Your task to perform on an android device: toggle location history Image 0: 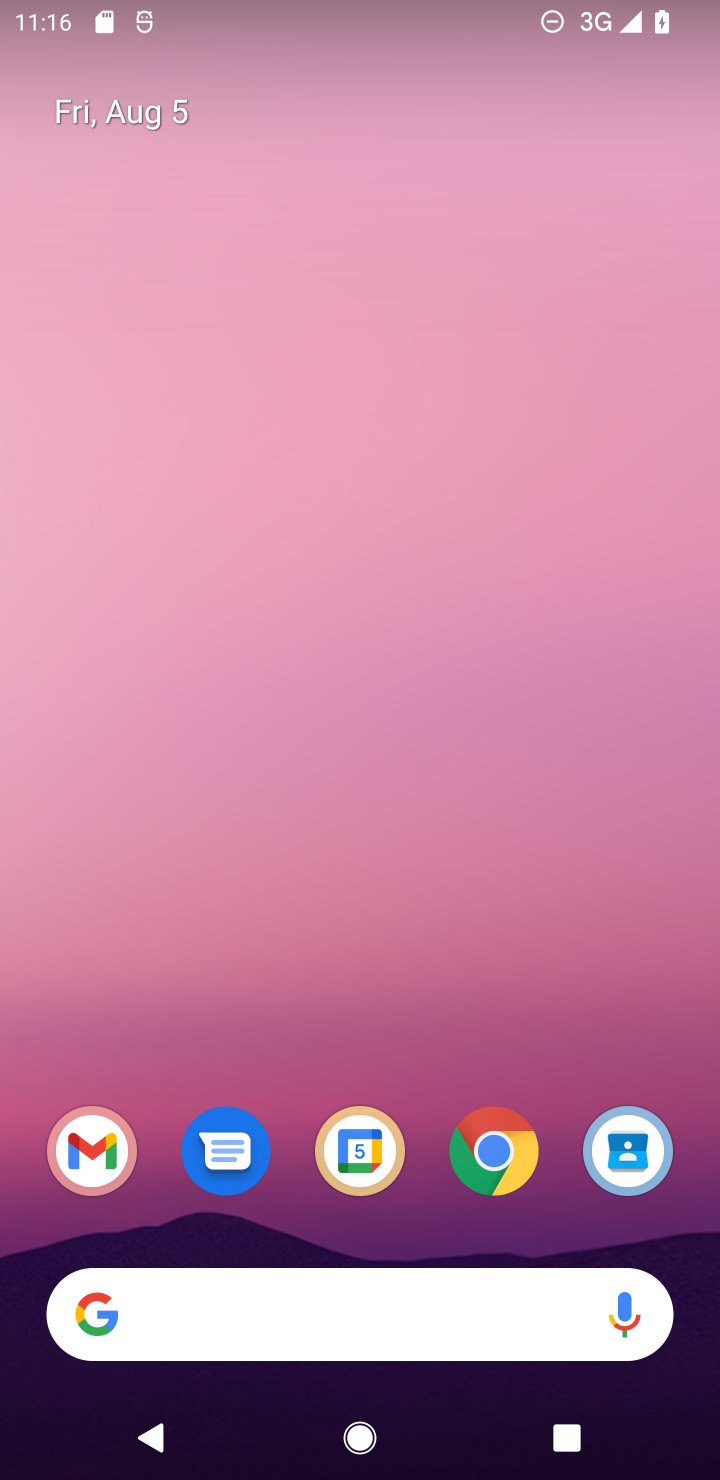
Step 0: drag from (297, 1054) to (299, 119)
Your task to perform on an android device: toggle location history Image 1: 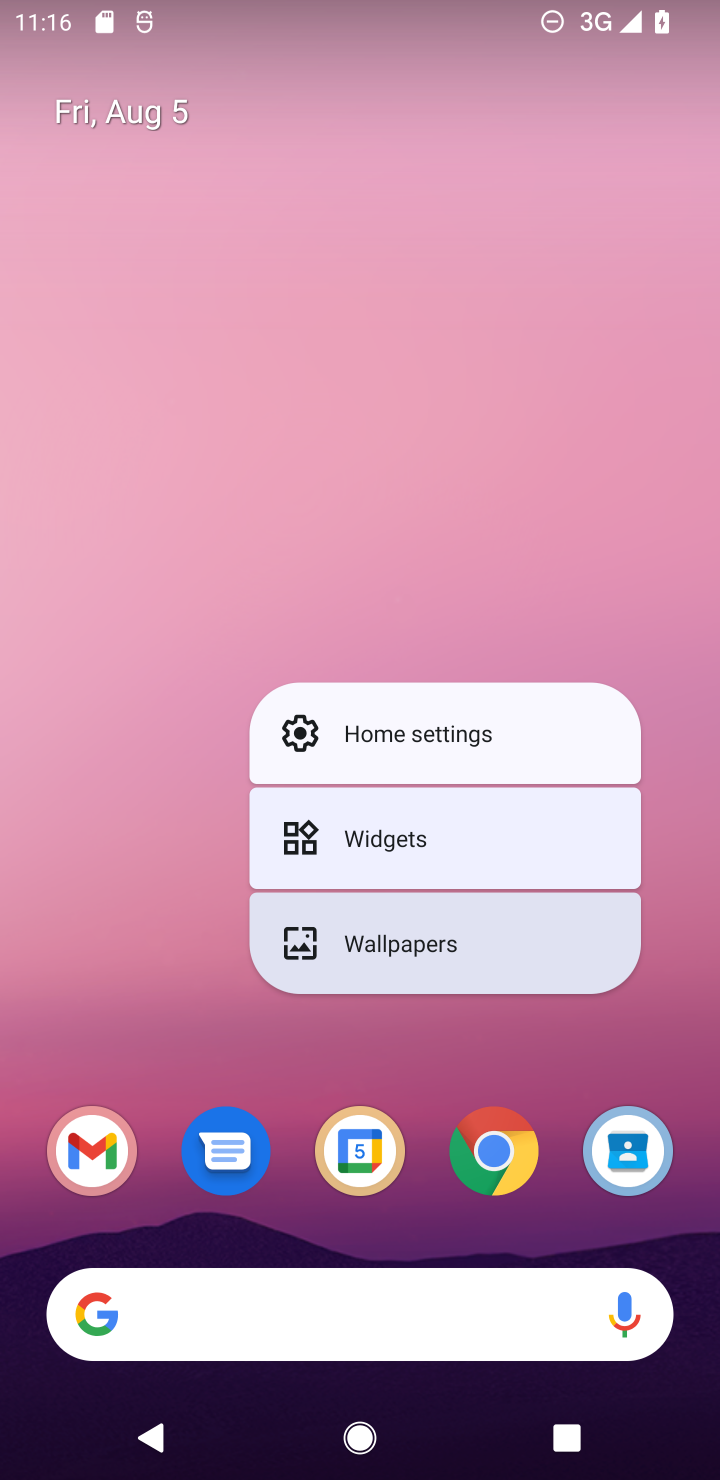
Step 1: click (290, 1233)
Your task to perform on an android device: toggle location history Image 2: 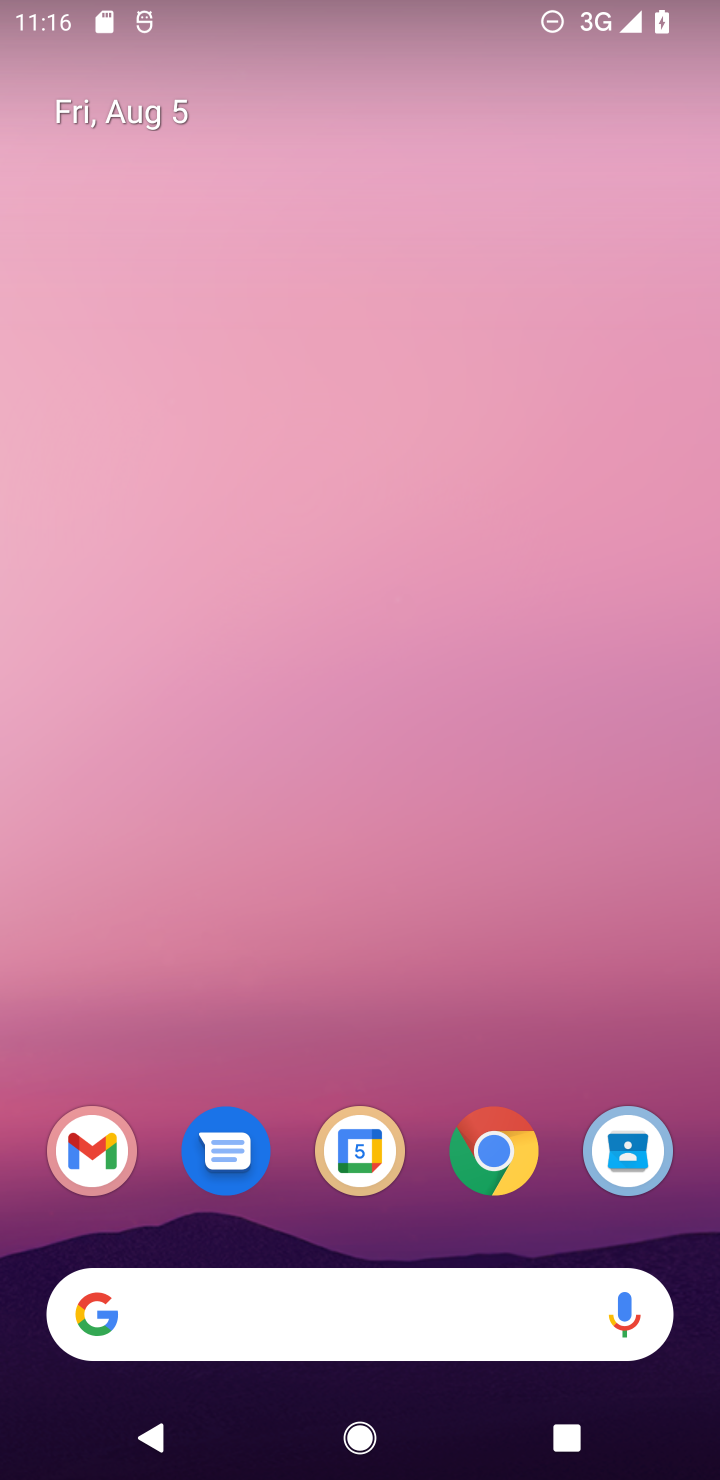
Step 2: drag from (285, 1185) to (346, 82)
Your task to perform on an android device: toggle location history Image 3: 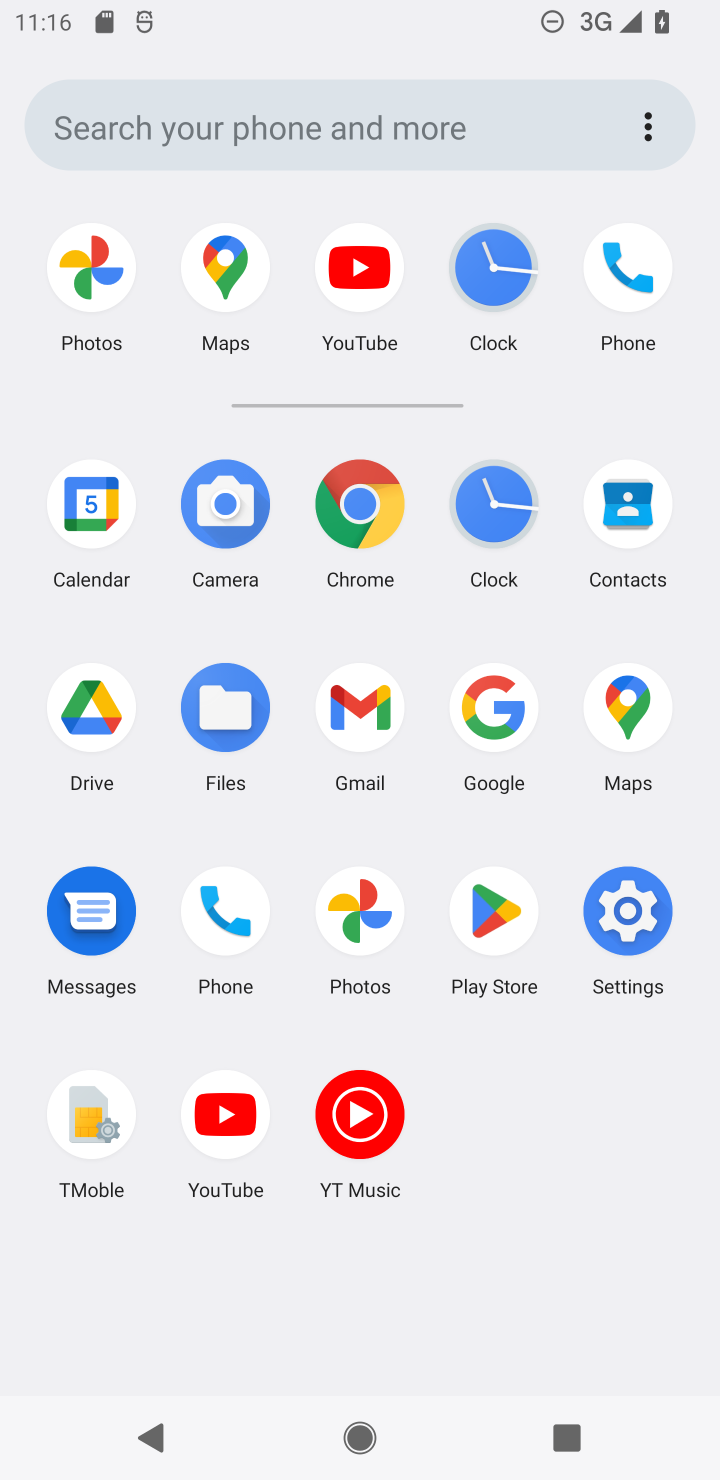
Step 3: click (617, 911)
Your task to perform on an android device: toggle location history Image 4: 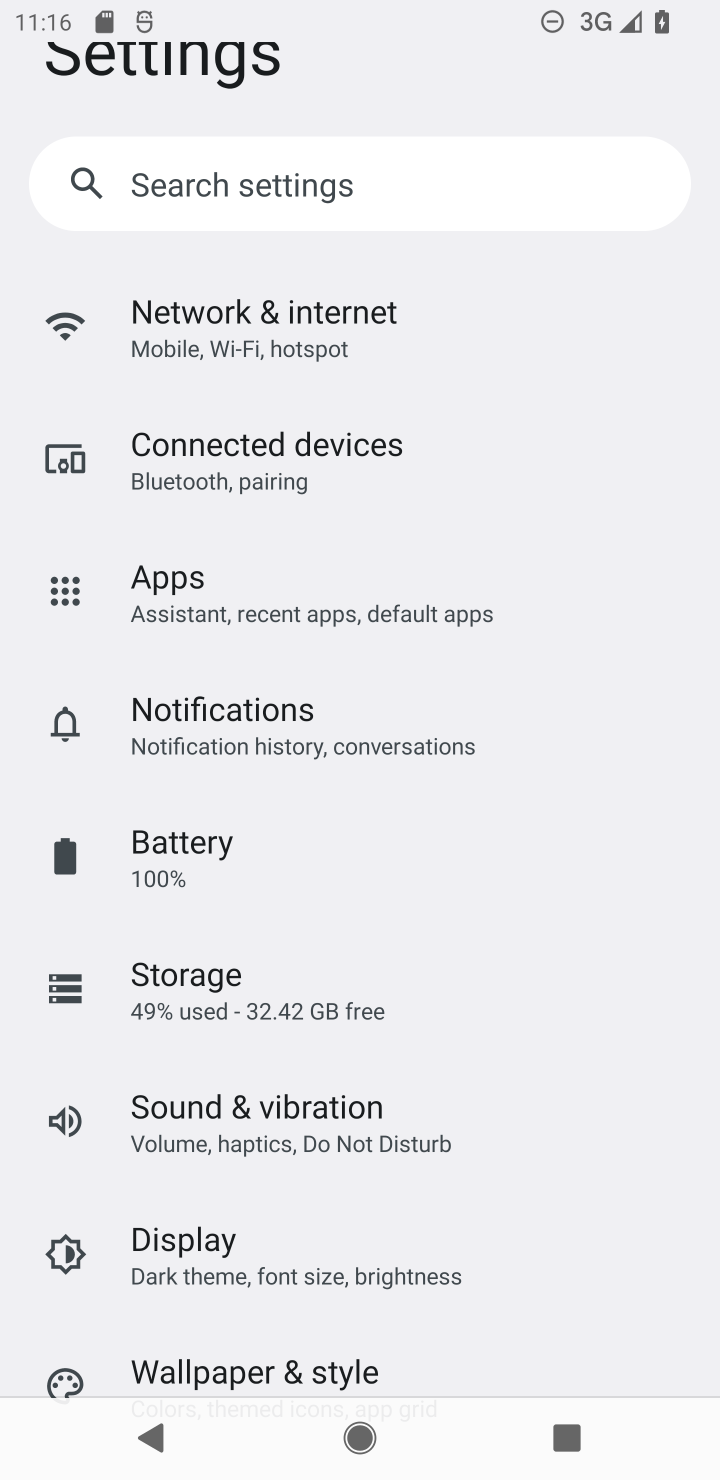
Step 4: click (91, 406)
Your task to perform on an android device: toggle location history Image 5: 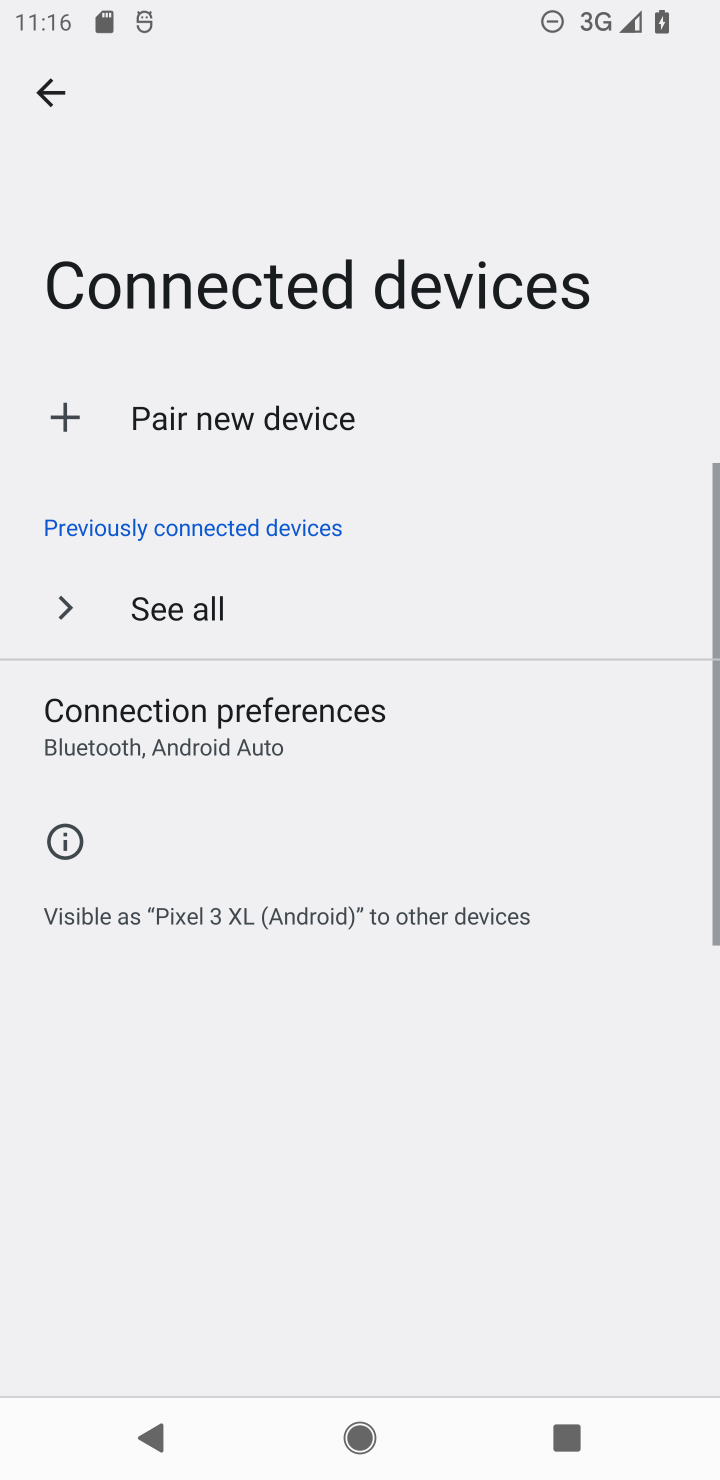
Step 5: drag from (292, 1294) to (279, 681)
Your task to perform on an android device: toggle location history Image 6: 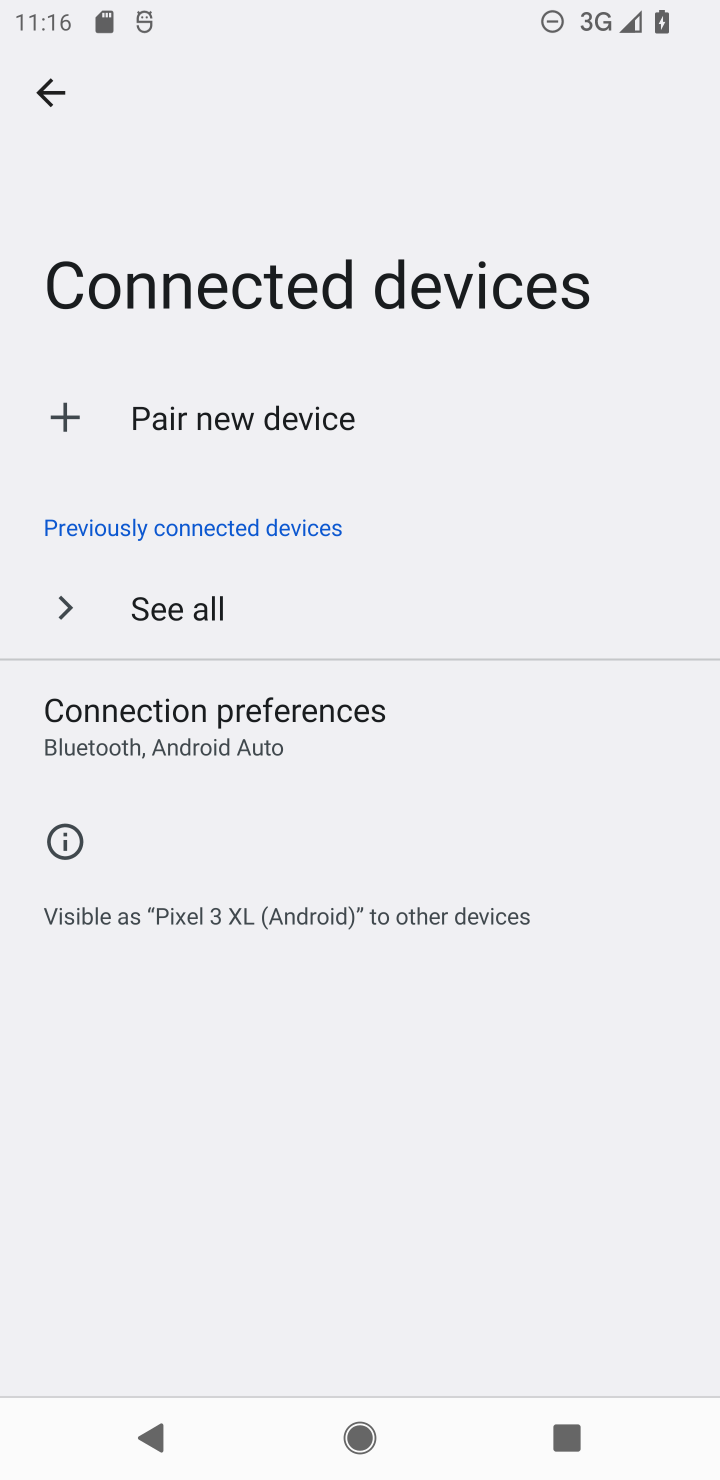
Step 6: click (46, 100)
Your task to perform on an android device: toggle location history Image 7: 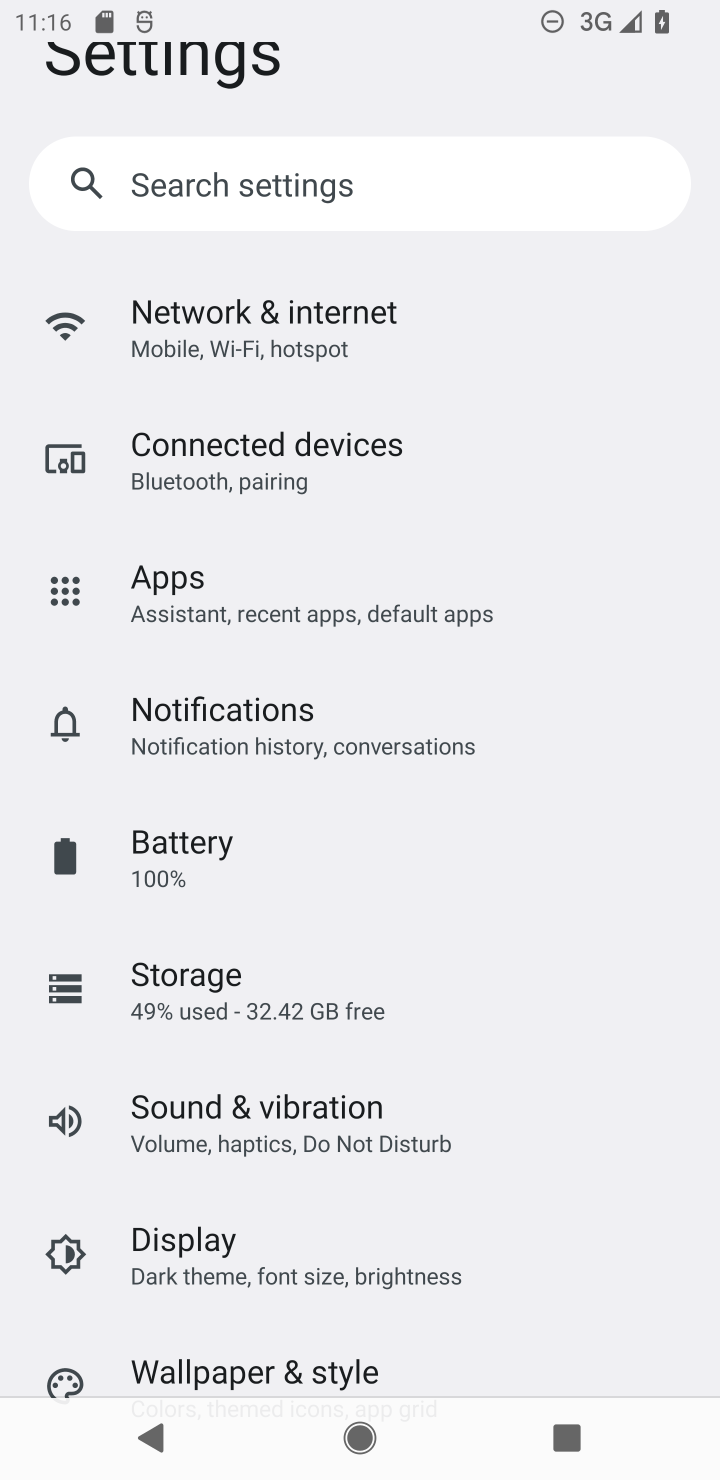
Step 7: drag from (233, 1234) to (233, 554)
Your task to perform on an android device: toggle location history Image 8: 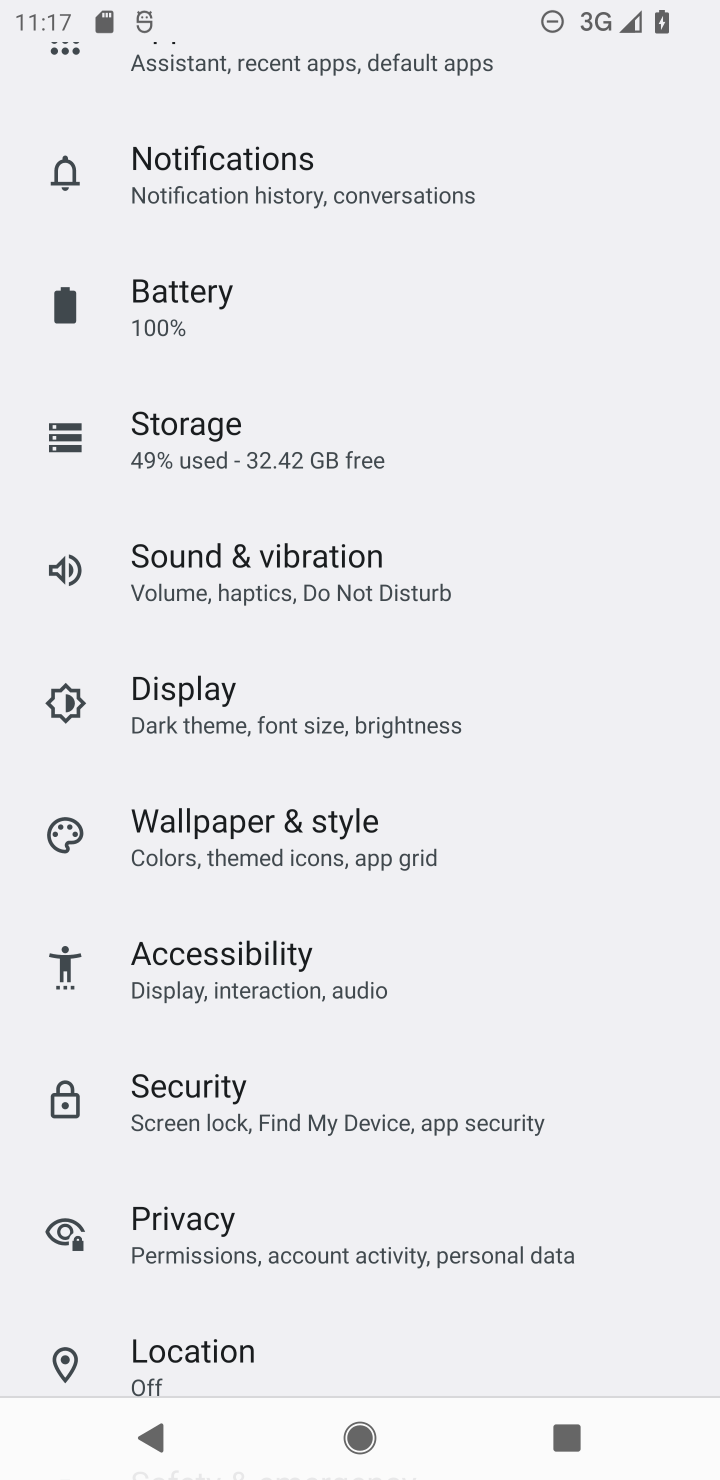
Step 8: click (187, 1354)
Your task to perform on an android device: toggle location history Image 9: 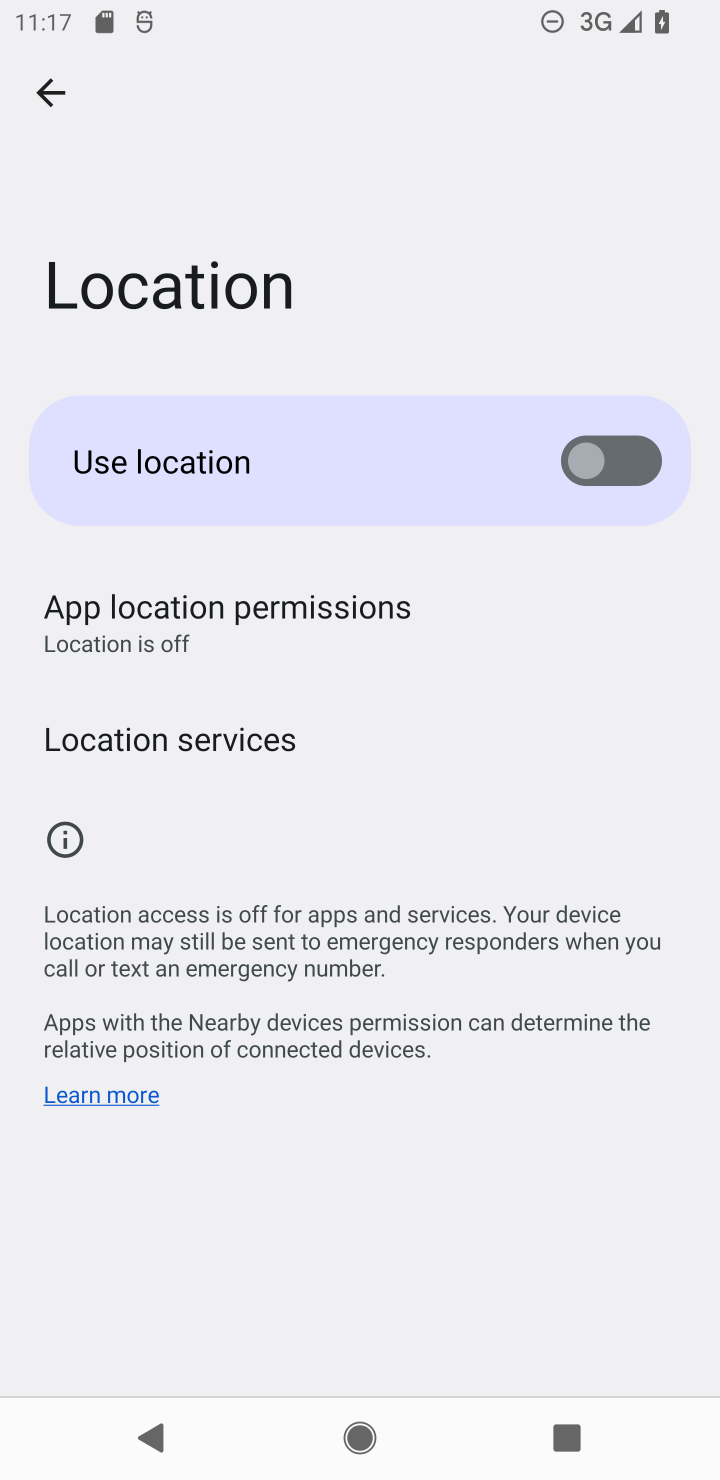
Step 9: click (220, 739)
Your task to perform on an android device: toggle location history Image 10: 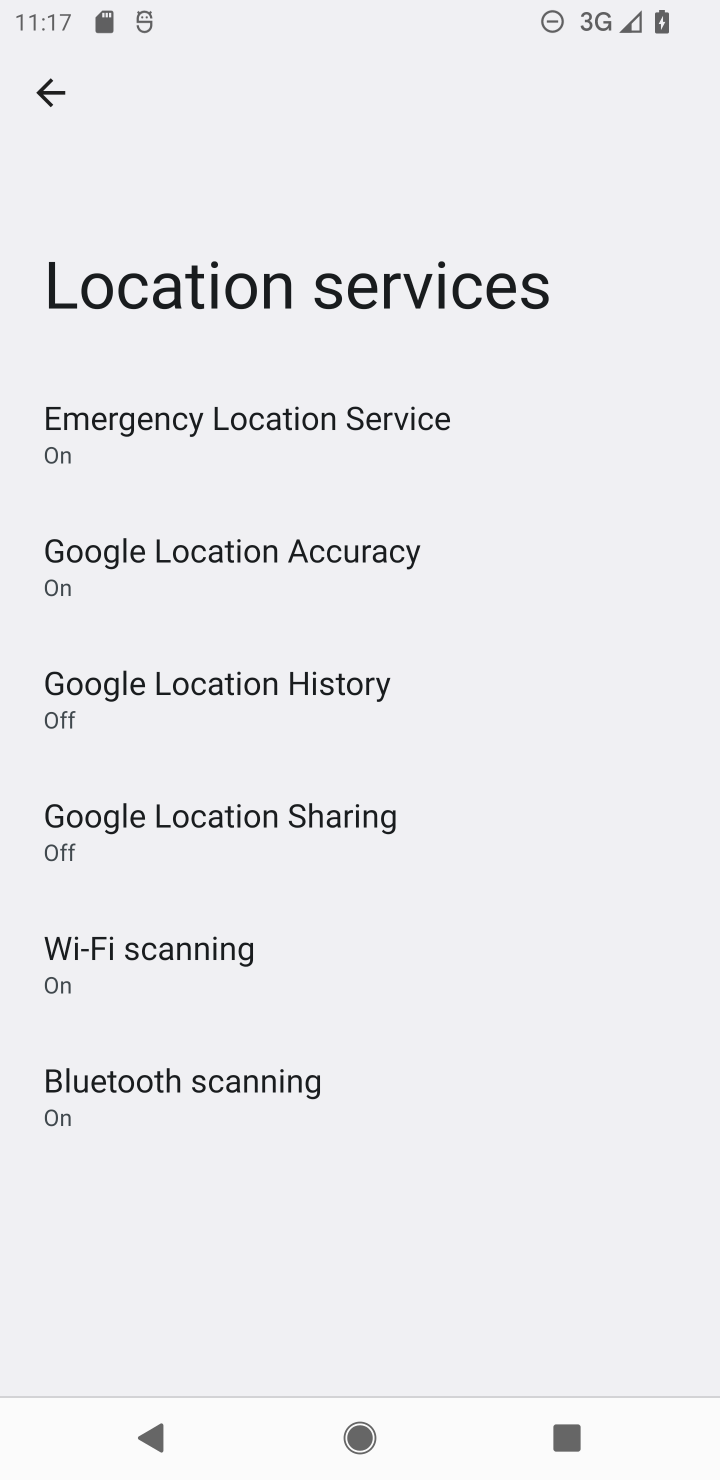
Step 10: click (308, 680)
Your task to perform on an android device: toggle location history Image 11: 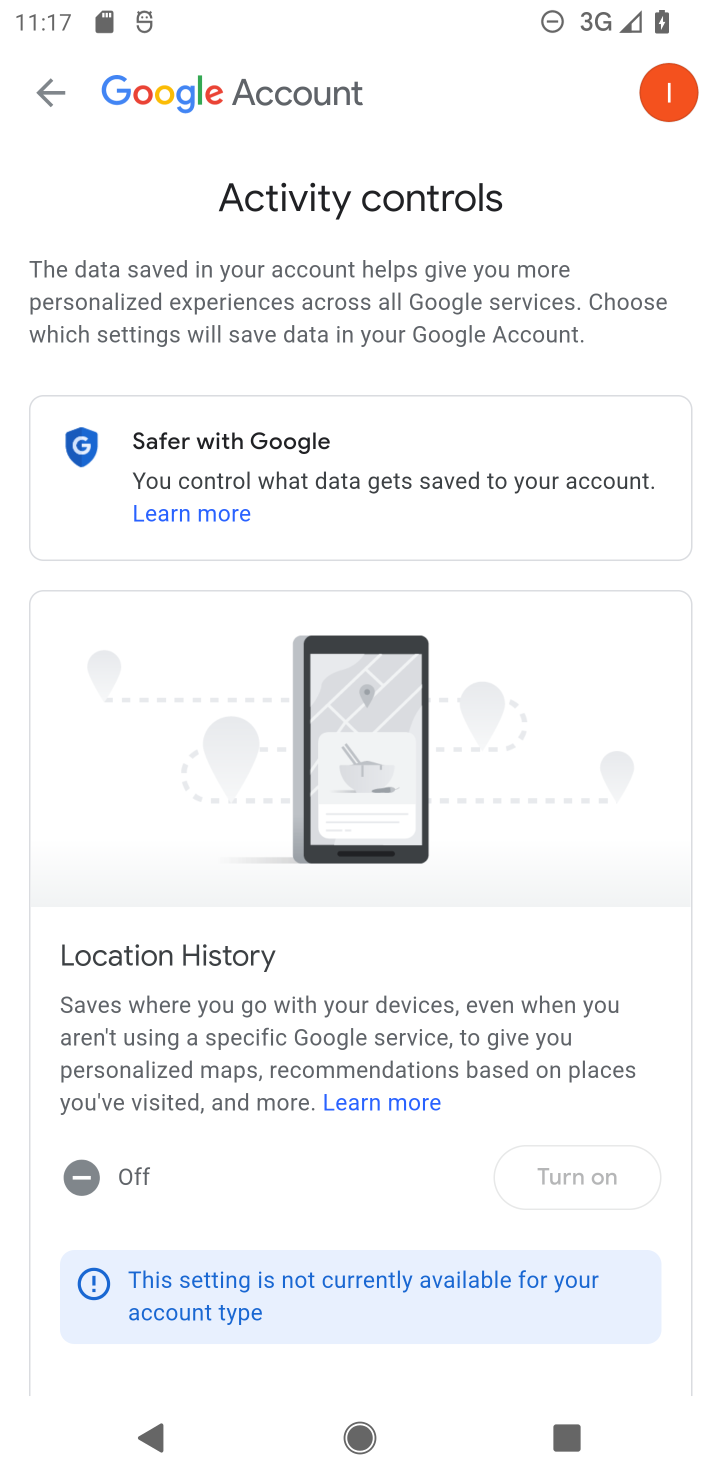
Step 11: task complete